Your task to perform on an android device: Go to ESPN.com Image 0: 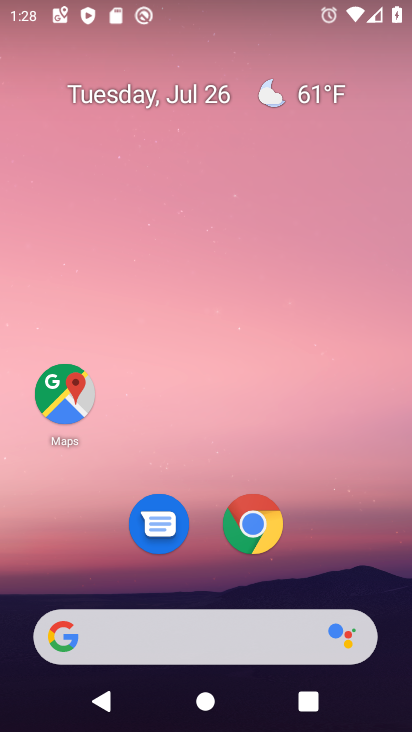
Step 0: click (248, 535)
Your task to perform on an android device: Go to ESPN.com Image 1: 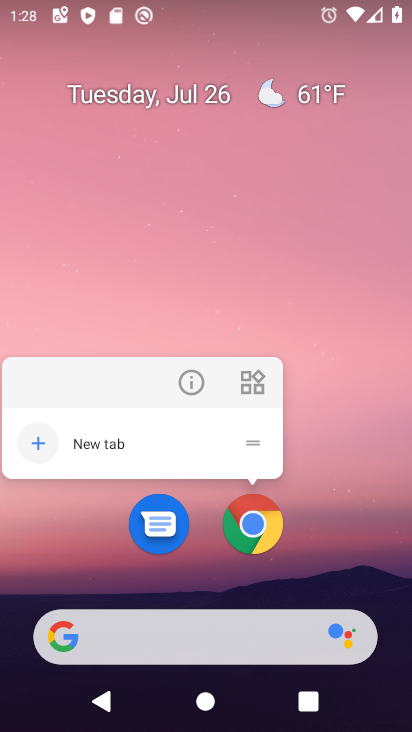
Step 1: click (252, 528)
Your task to perform on an android device: Go to ESPN.com Image 2: 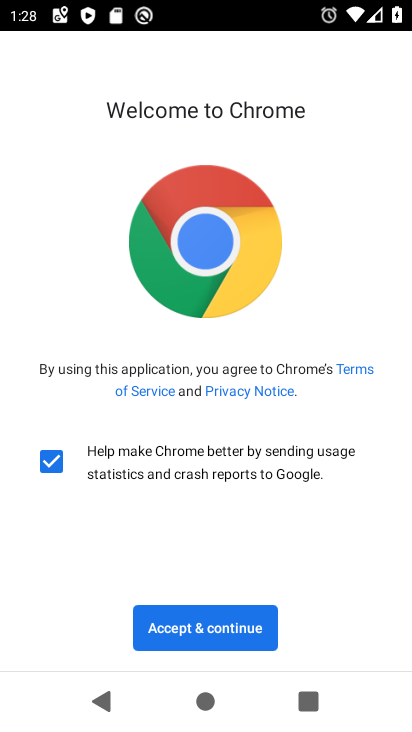
Step 2: click (200, 622)
Your task to perform on an android device: Go to ESPN.com Image 3: 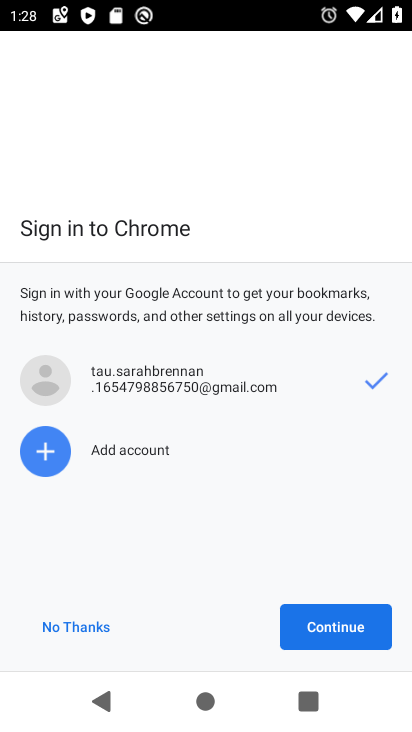
Step 3: click (321, 637)
Your task to perform on an android device: Go to ESPN.com Image 4: 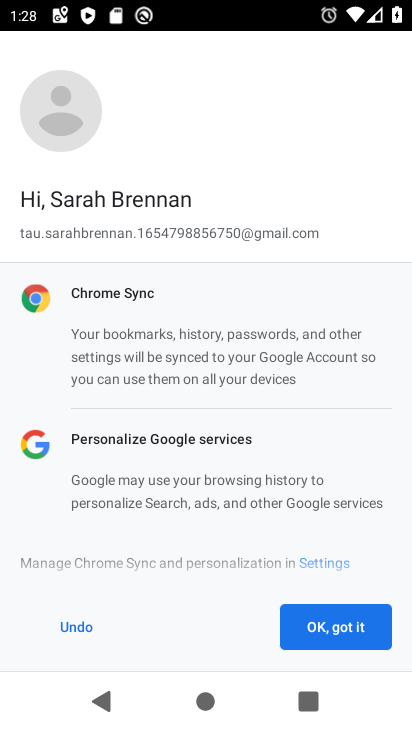
Step 4: click (320, 621)
Your task to perform on an android device: Go to ESPN.com Image 5: 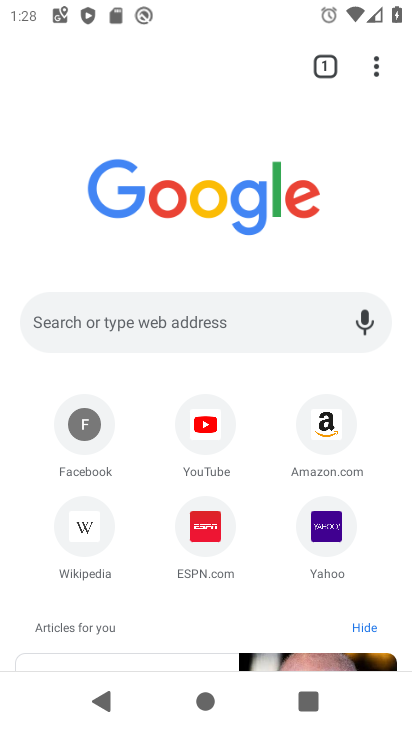
Step 5: click (203, 535)
Your task to perform on an android device: Go to ESPN.com Image 6: 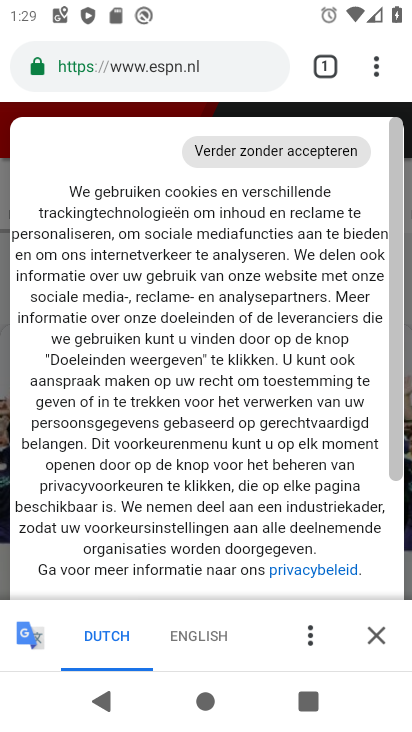
Step 6: click (215, 632)
Your task to perform on an android device: Go to ESPN.com Image 7: 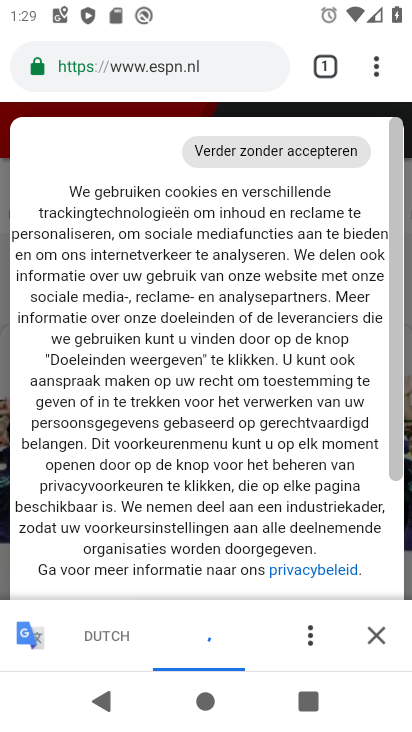
Step 7: drag from (184, 521) to (317, 214)
Your task to perform on an android device: Go to ESPN.com Image 8: 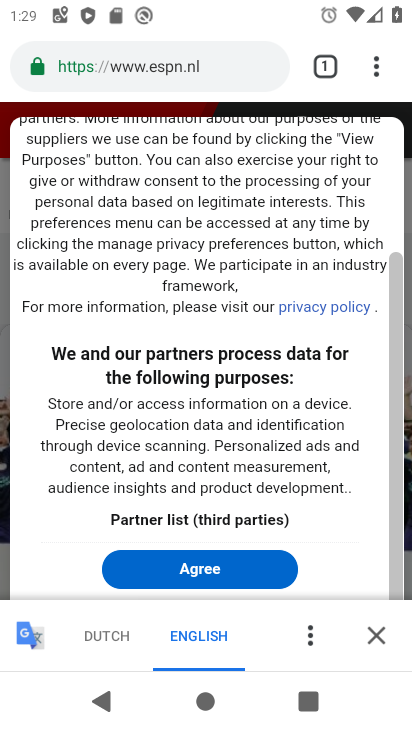
Step 8: click (205, 570)
Your task to perform on an android device: Go to ESPN.com Image 9: 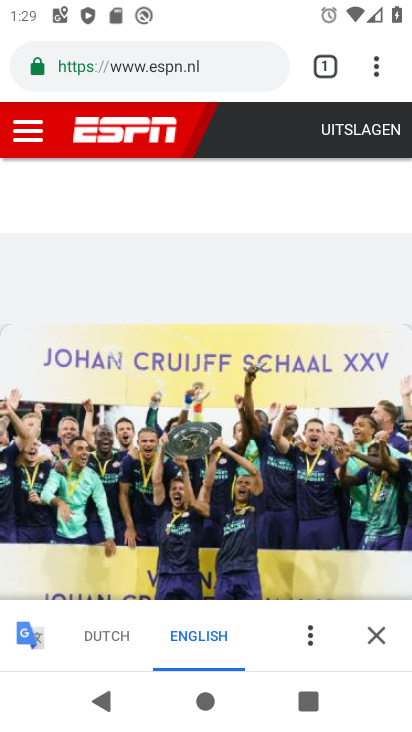
Step 9: task complete